Your task to perform on an android device: Go to accessibility settings Image 0: 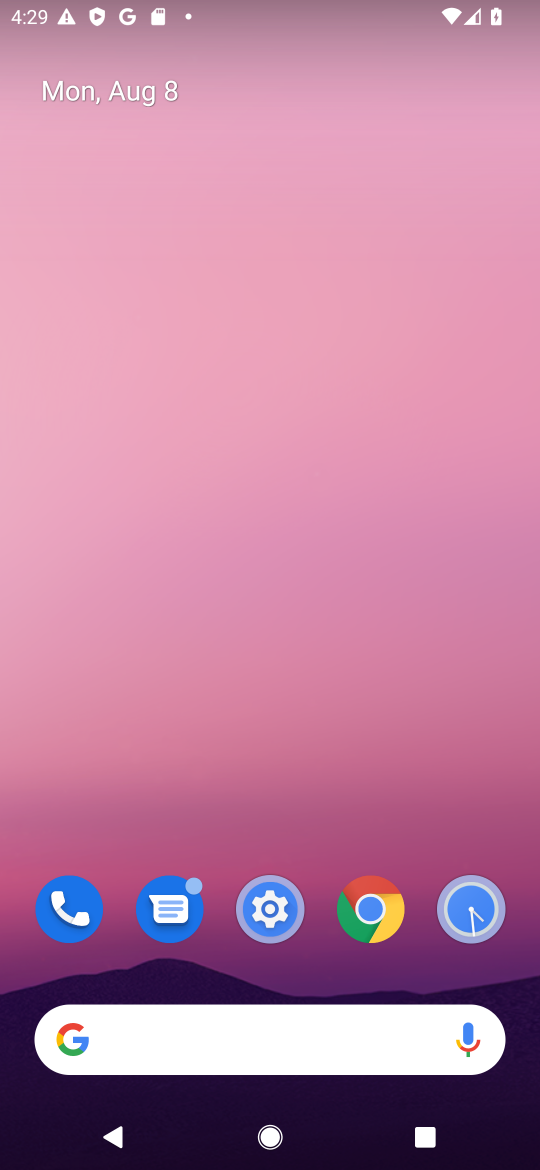
Step 0: click (261, 896)
Your task to perform on an android device: Go to accessibility settings Image 1: 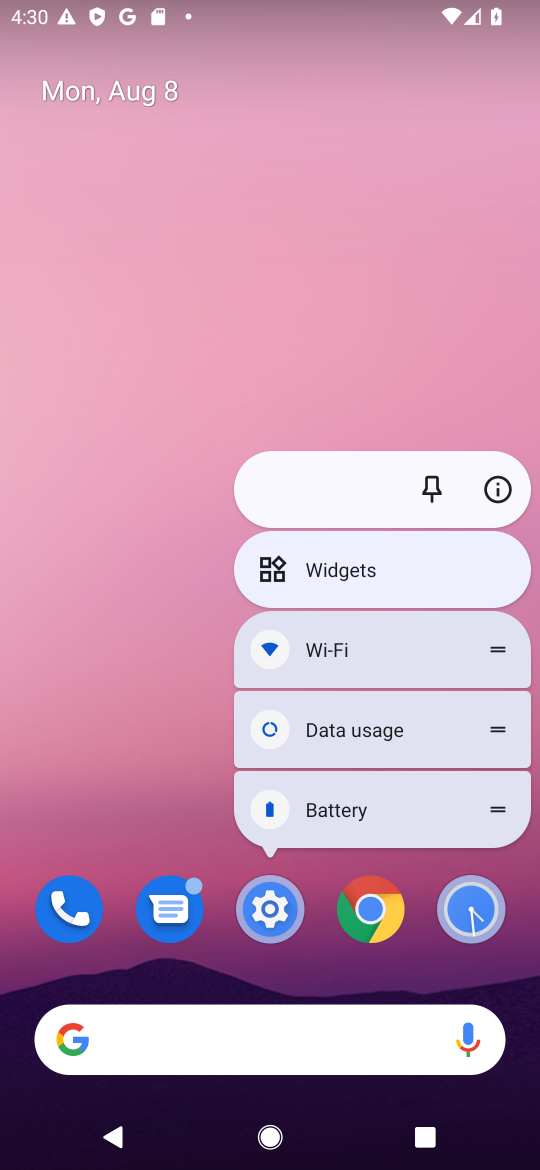
Step 1: click (261, 902)
Your task to perform on an android device: Go to accessibility settings Image 2: 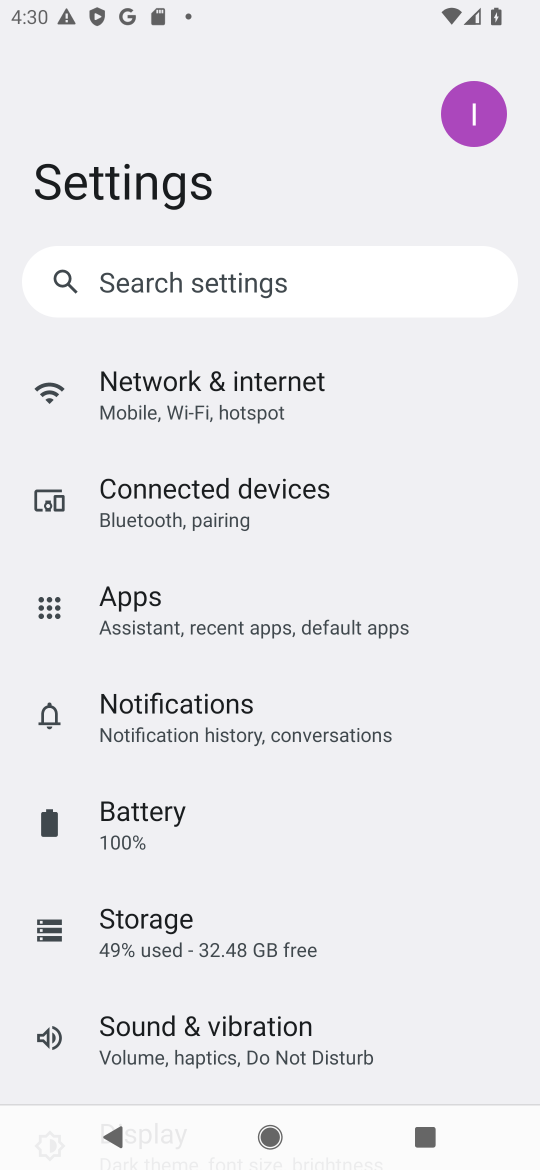
Step 2: drag from (391, 977) to (459, 157)
Your task to perform on an android device: Go to accessibility settings Image 3: 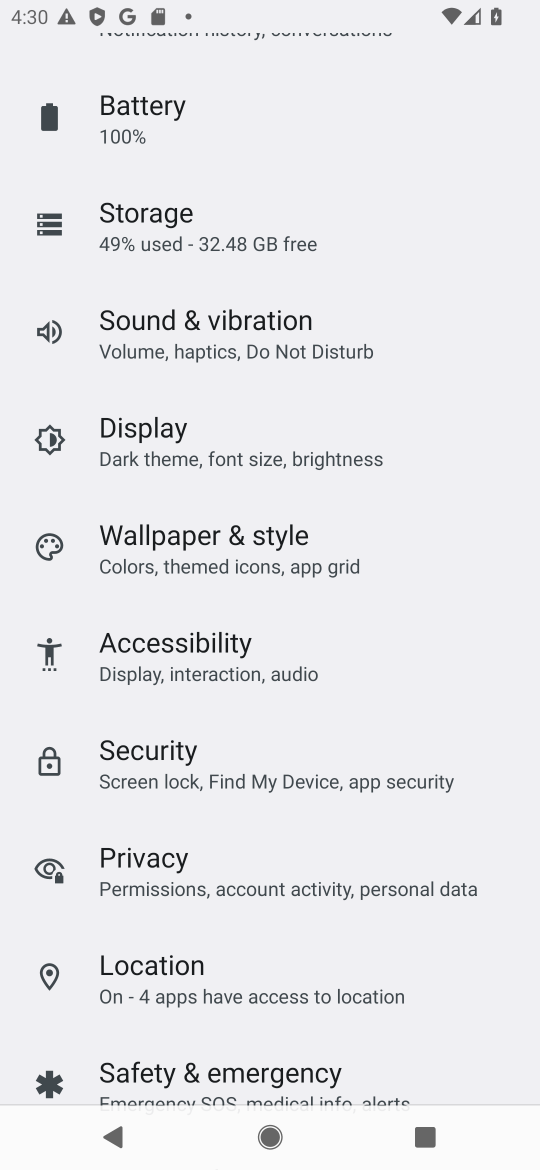
Step 3: click (184, 659)
Your task to perform on an android device: Go to accessibility settings Image 4: 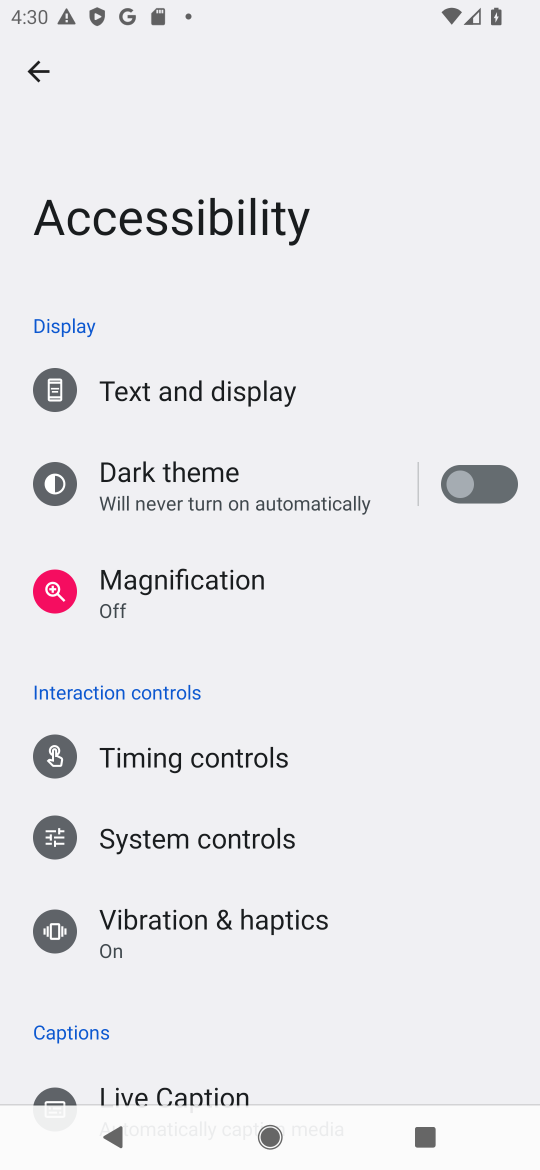
Step 4: task complete